Your task to perform on an android device: Set the phone to "Do not disturb". Image 0: 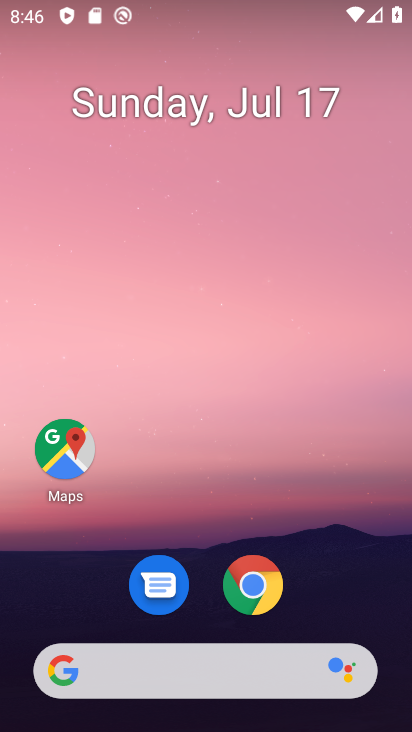
Step 0: drag from (228, 666) to (345, 71)
Your task to perform on an android device: Set the phone to "Do not disturb". Image 1: 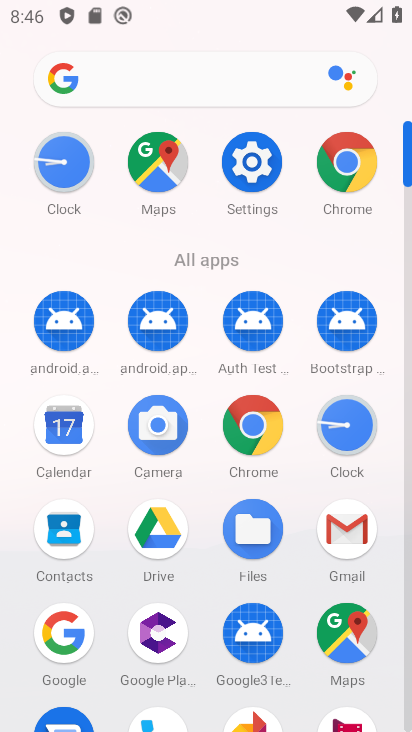
Step 1: click (258, 163)
Your task to perform on an android device: Set the phone to "Do not disturb". Image 2: 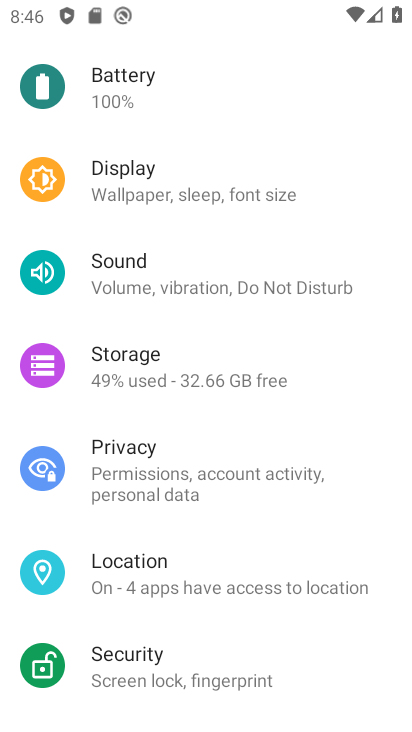
Step 2: click (224, 279)
Your task to perform on an android device: Set the phone to "Do not disturb". Image 3: 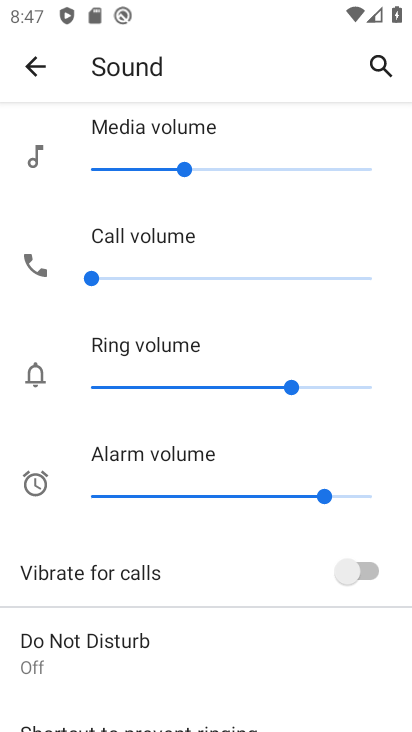
Step 3: click (124, 640)
Your task to perform on an android device: Set the phone to "Do not disturb". Image 4: 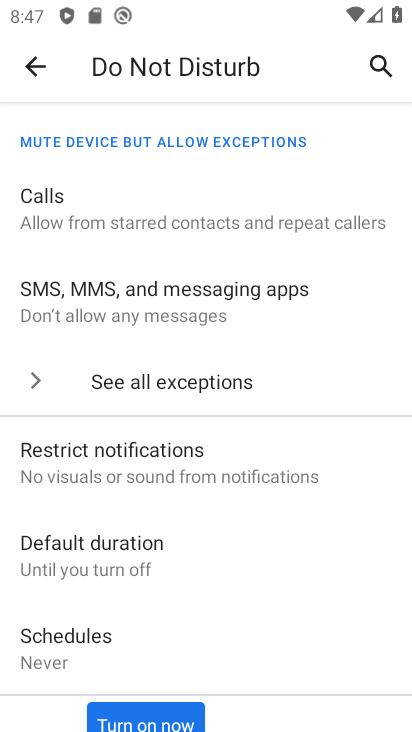
Step 4: drag from (191, 619) to (301, 187)
Your task to perform on an android device: Set the phone to "Do not disturb". Image 5: 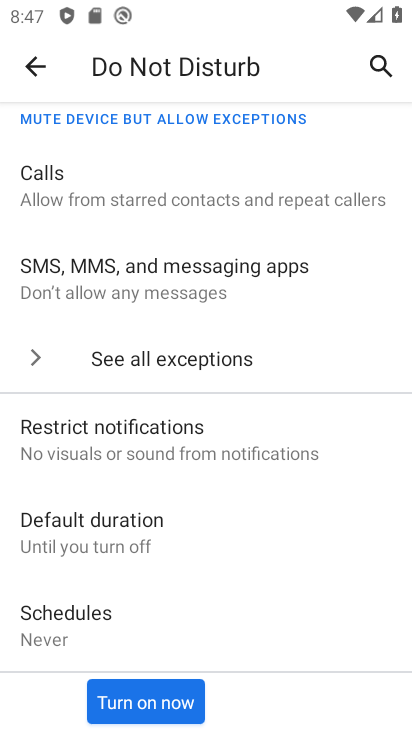
Step 5: click (139, 701)
Your task to perform on an android device: Set the phone to "Do not disturb". Image 6: 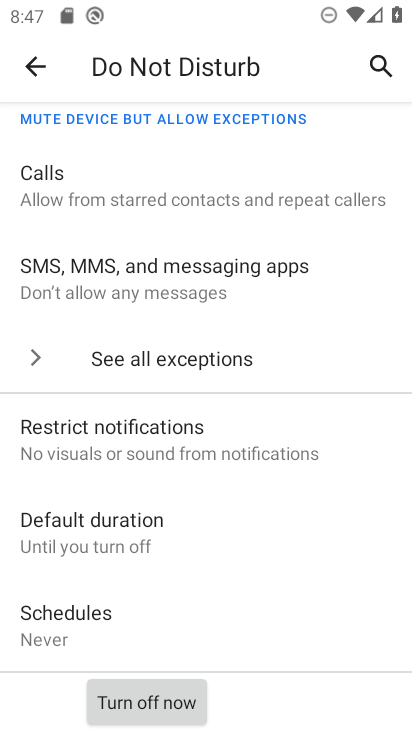
Step 6: task complete